Your task to perform on an android device: Open accessibility settings Image 0: 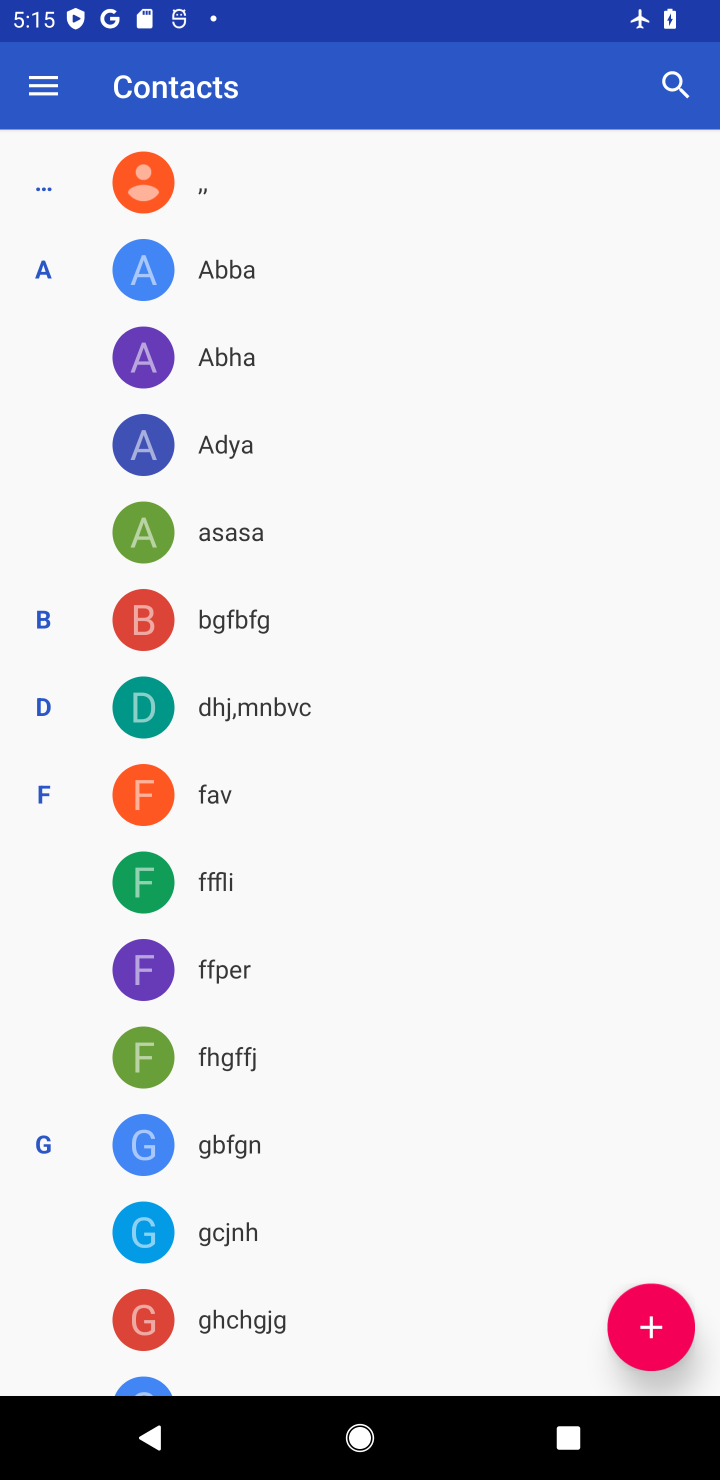
Step 0: press home button
Your task to perform on an android device: Open accessibility settings Image 1: 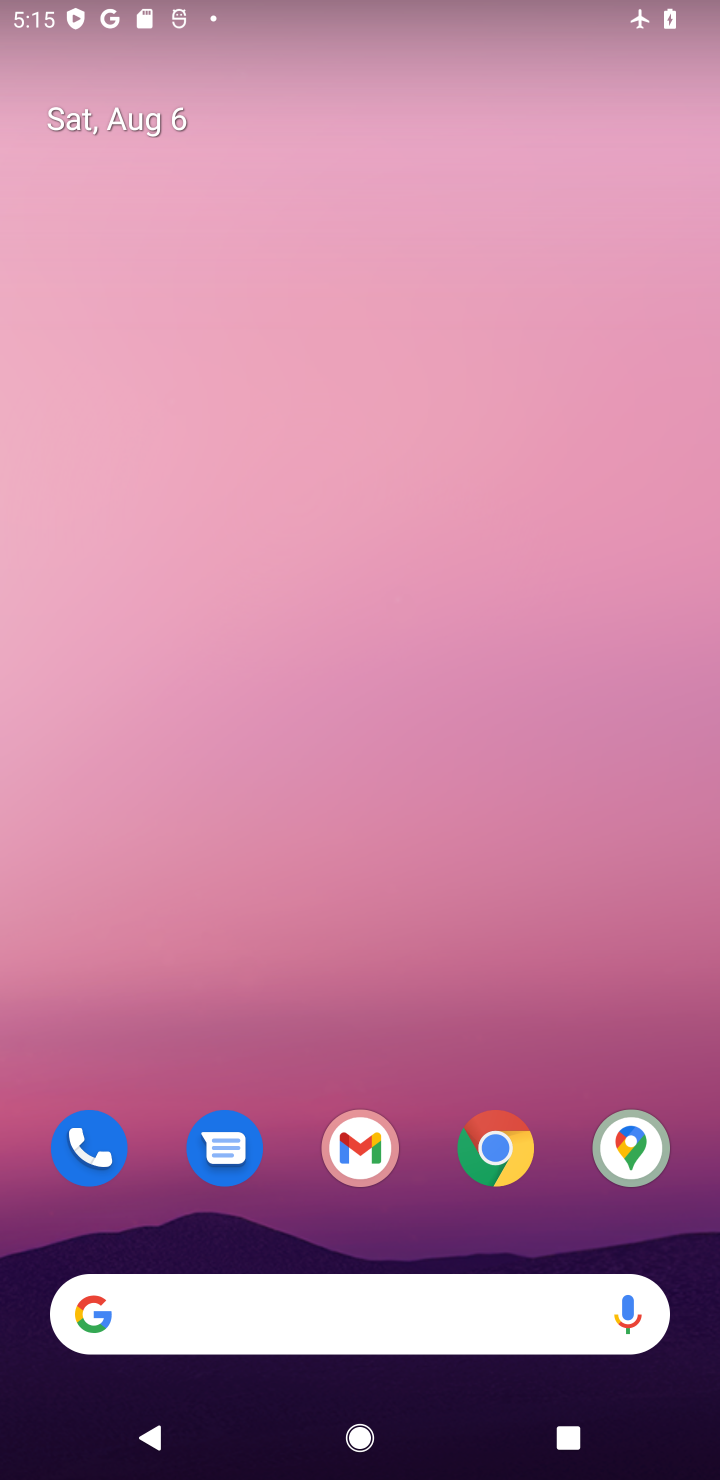
Step 1: drag from (321, 1205) to (501, 103)
Your task to perform on an android device: Open accessibility settings Image 2: 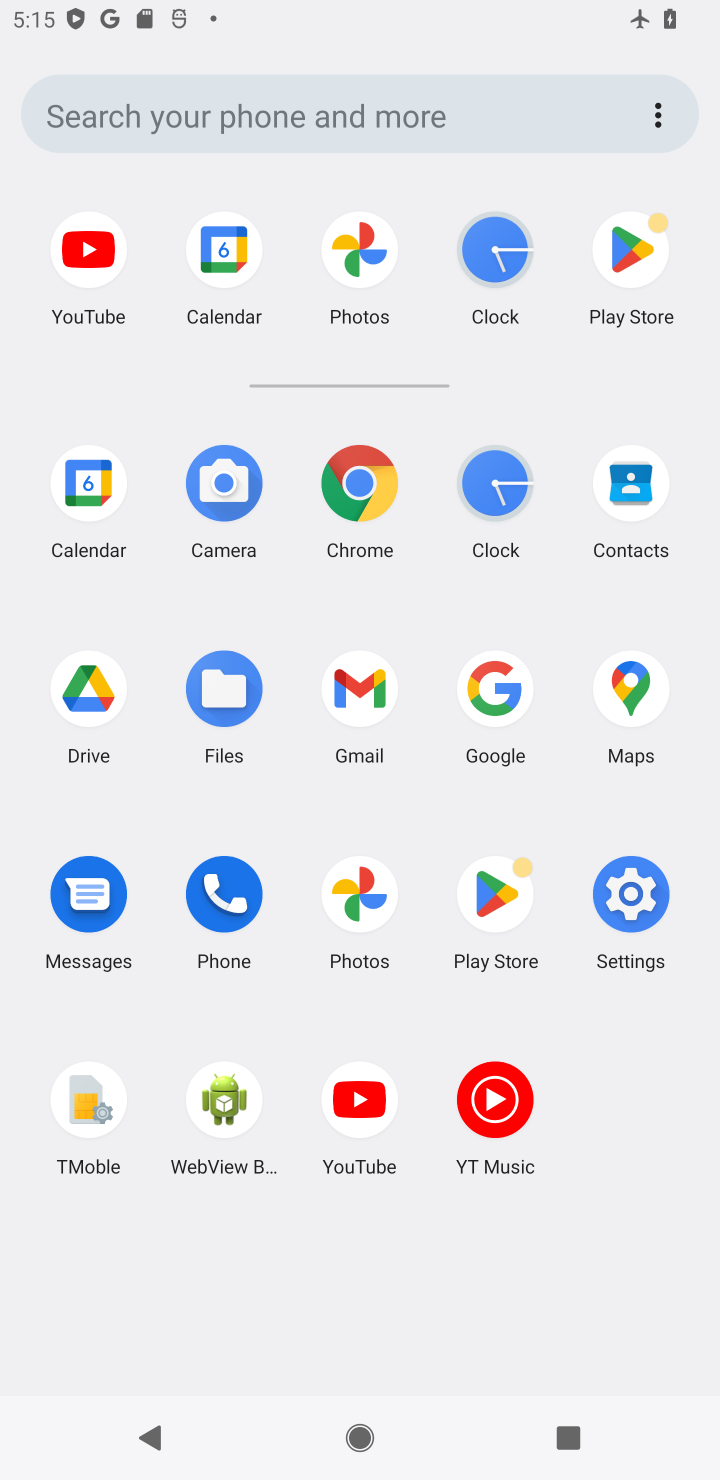
Step 2: click (618, 900)
Your task to perform on an android device: Open accessibility settings Image 3: 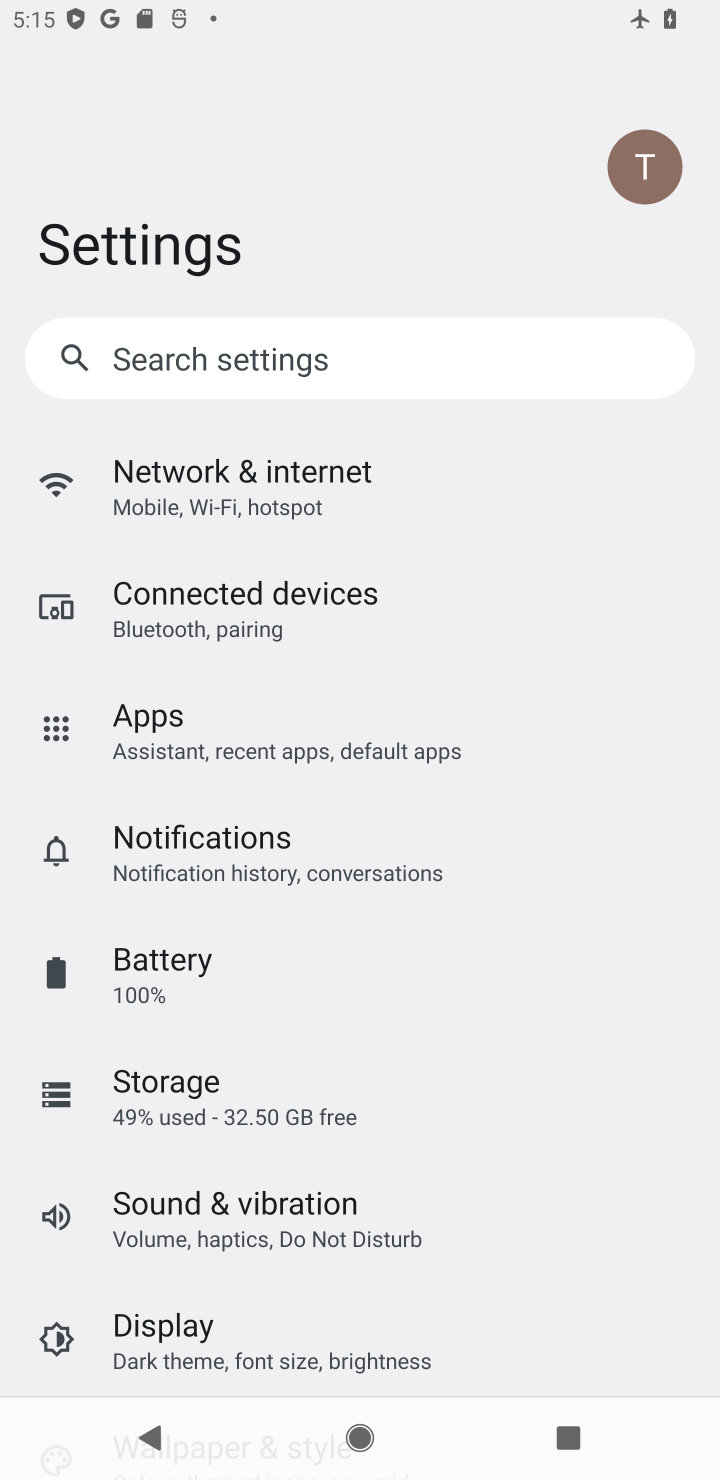
Step 3: drag from (230, 1142) to (105, 79)
Your task to perform on an android device: Open accessibility settings Image 4: 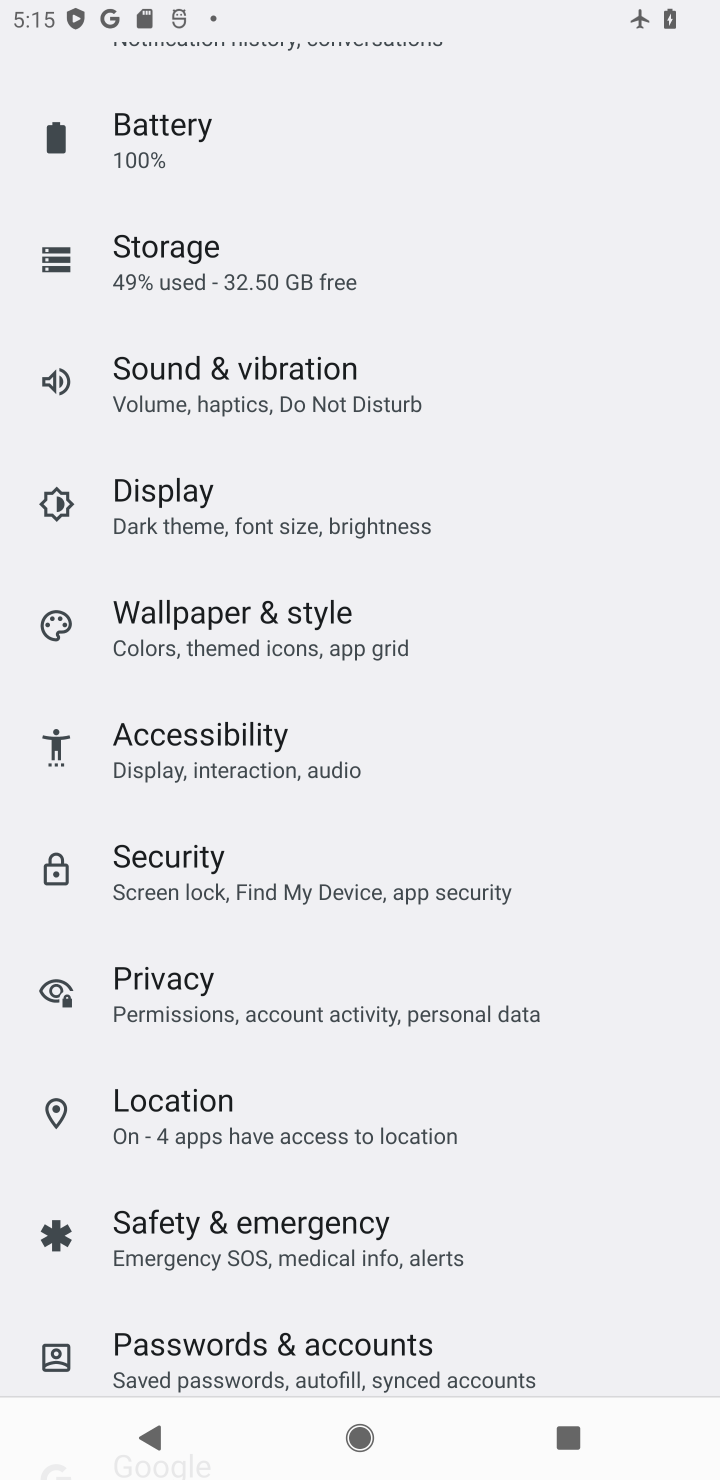
Step 4: click (186, 802)
Your task to perform on an android device: Open accessibility settings Image 5: 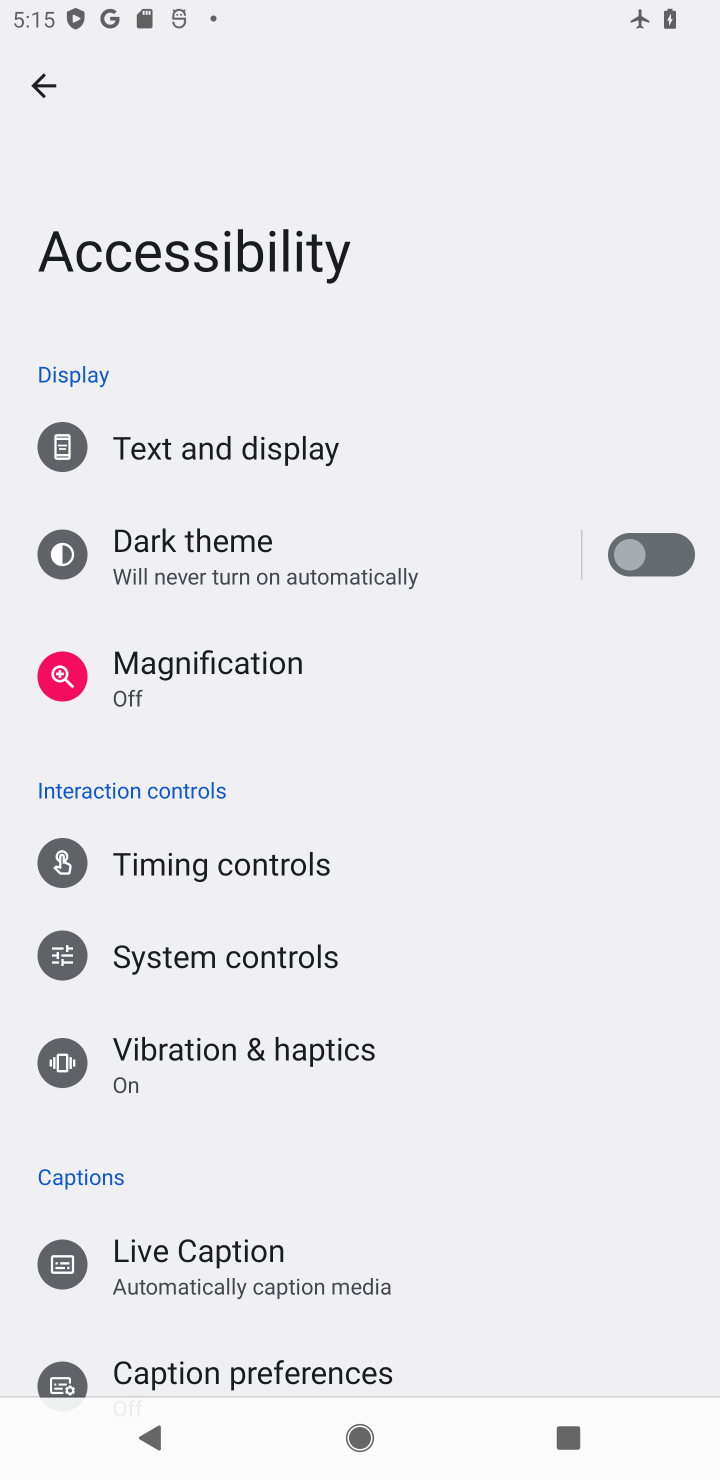
Step 5: task complete